Your task to perform on an android device: turn on translation in the chrome app Image 0: 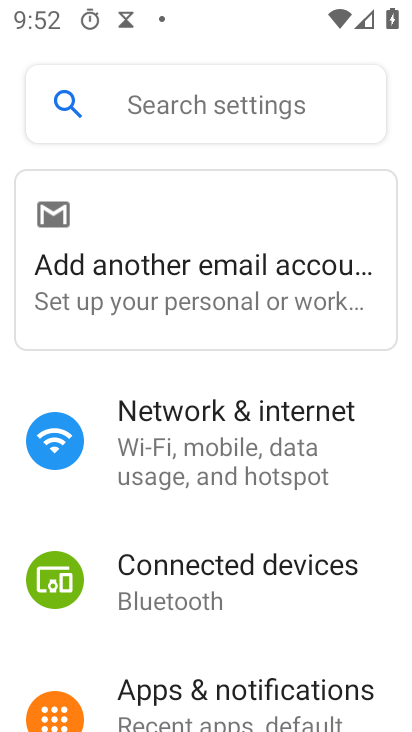
Step 0: press home button
Your task to perform on an android device: turn on translation in the chrome app Image 1: 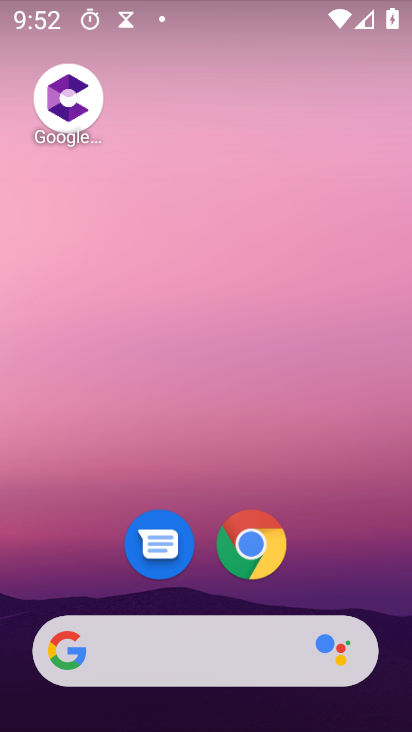
Step 1: drag from (346, 581) to (300, 223)
Your task to perform on an android device: turn on translation in the chrome app Image 2: 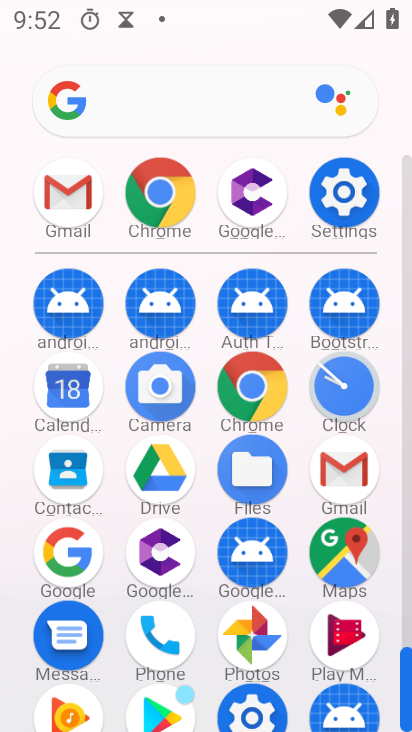
Step 2: click (253, 394)
Your task to perform on an android device: turn on translation in the chrome app Image 3: 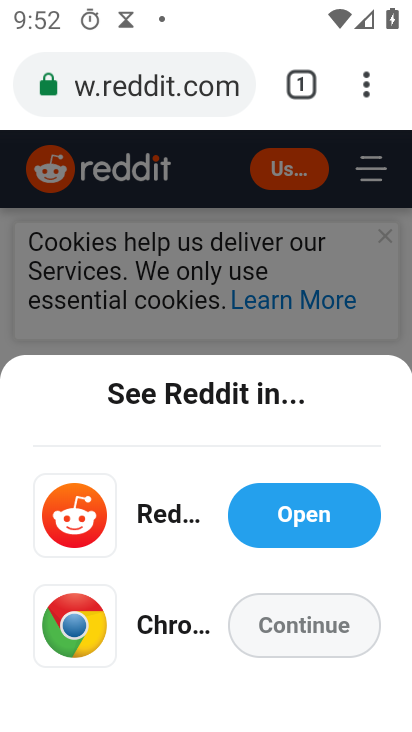
Step 3: press back button
Your task to perform on an android device: turn on translation in the chrome app Image 4: 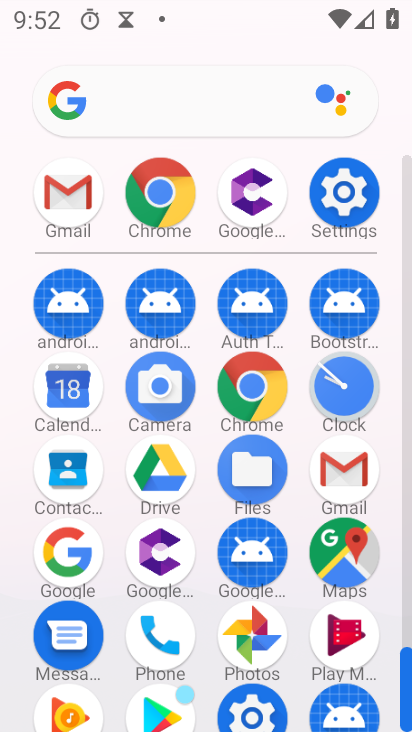
Step 4: click (254, 384)
Your task to perform on an android device: turn on translation in the chrome app Image 5: 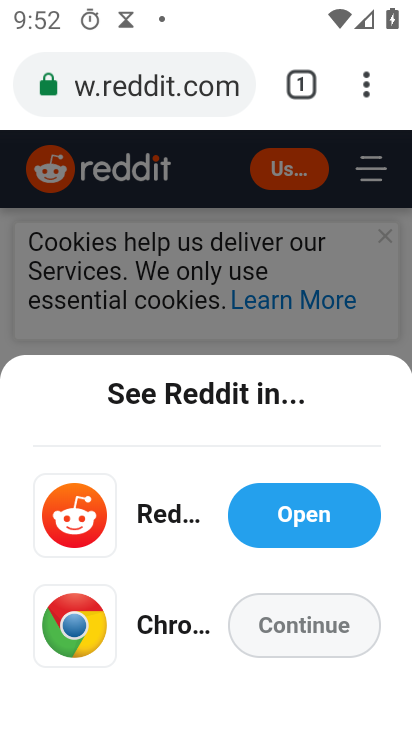
Step 5: click (325, 638)
Your task to perform on an android device: turn on translation in the chrome app Image 6: 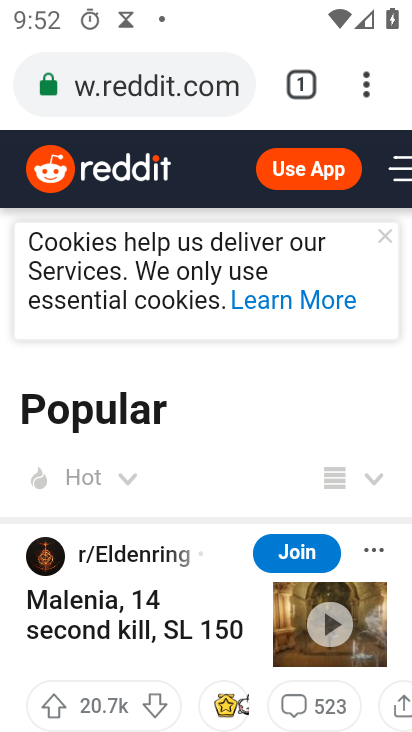
Step 6: click (370, 95)
Your task to perform on an android device: turn on translation in the chrome app Image 7: 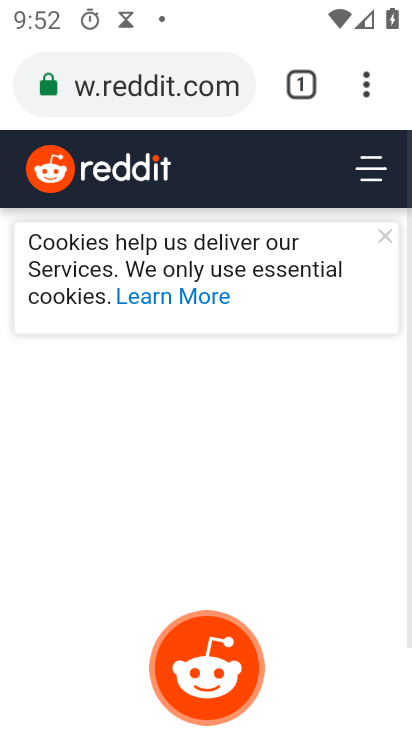
Step 7: drag from (370, 95) to (276, 589)
Your task to perform on an android device: turn on translation in the chrome app Image 8: 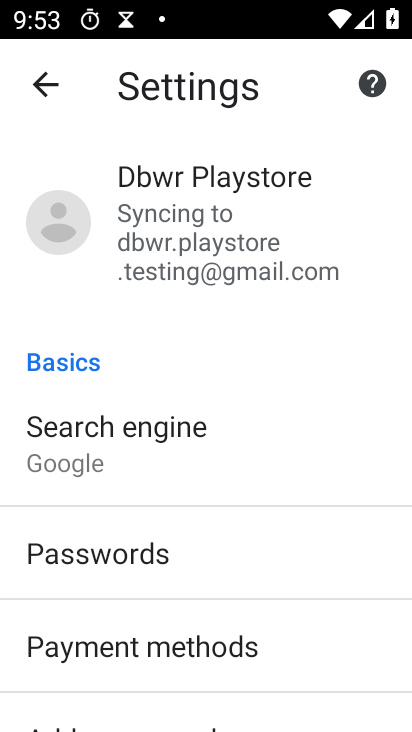
Step 8: drag from (329, 688) to (240, 245)
Your task to perform on an android device: turn on translation in the chrome app Image 9: 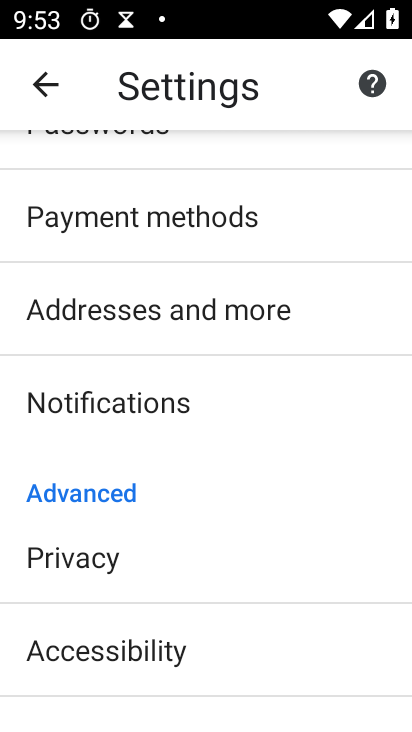
Step 9: drag from (289, 605) to (259, 238)
Your task to perform on an android device: turn on translation in the chrome app Image 10: 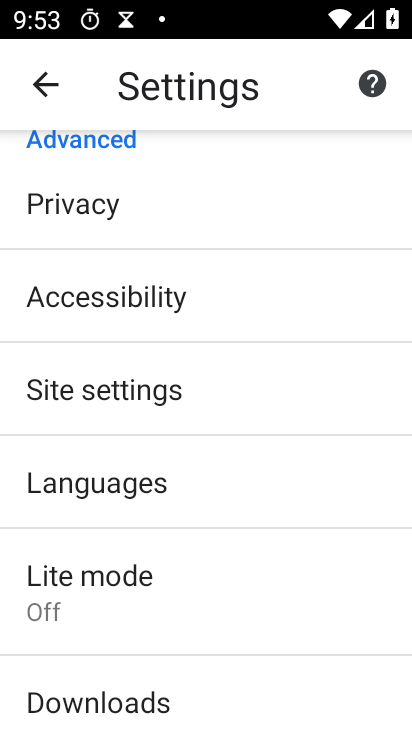
Step 10: click (237, 476)
Your task to perform on an android device: turn on translation in the chrome app Image 11: 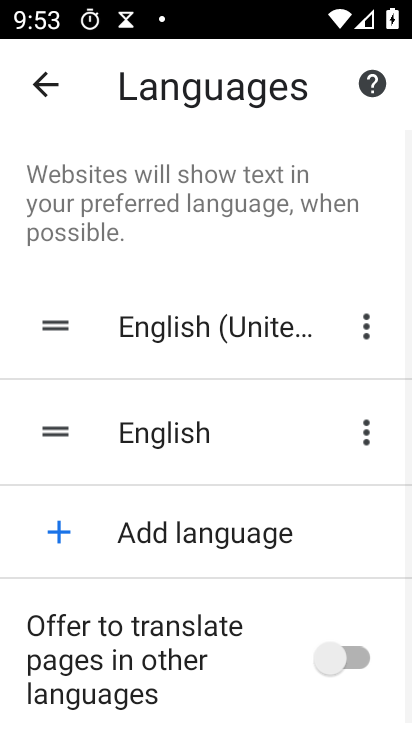
Step 11: drag from (298, 666) to (290, 493)
Your task to perform on an android device: turn on translation in the chrome app Image 12: 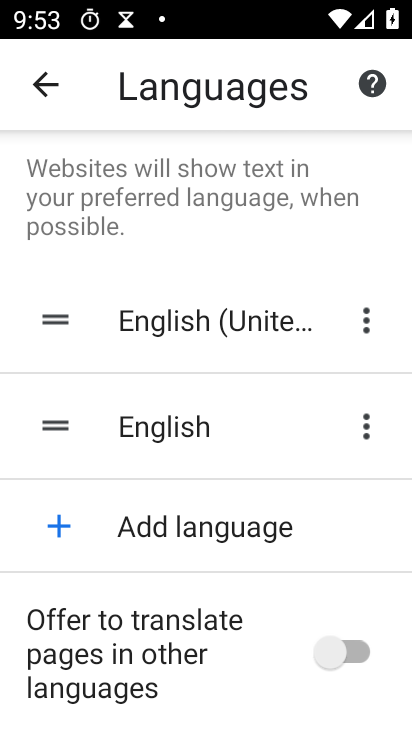
Step 12: click (360, 651)
Your task to perform on an android device: turn on translation in the chrome app Image 13: 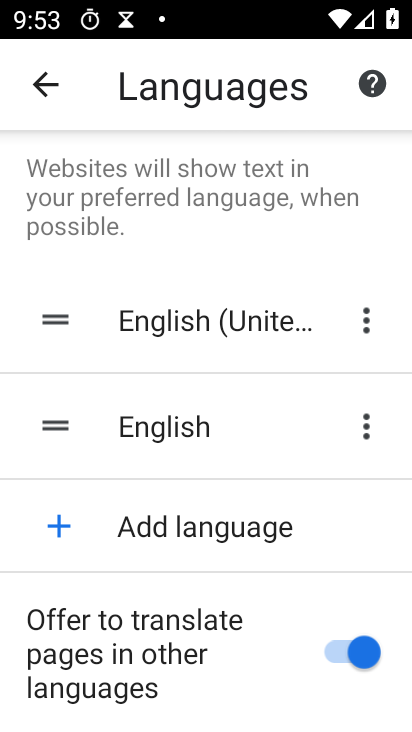
Step 13: task complete